Your task to perform on an android device: open wifi settings Image 0: 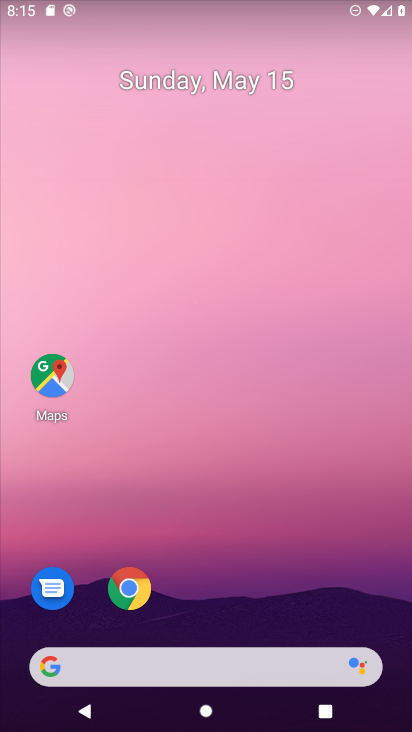
Step 0: drag from (208, 618) to (204, 243)
Your task to perform on an android device: open wifi settings Image 1: 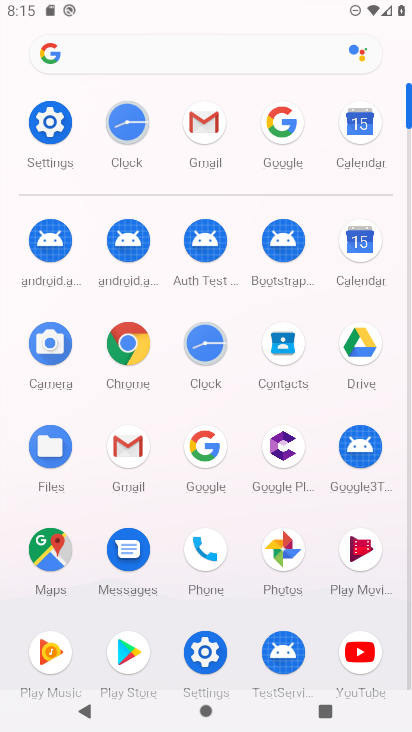
Step 1: click (49, 118)
Your task to perform on an android device: open wifi settings Image 2: 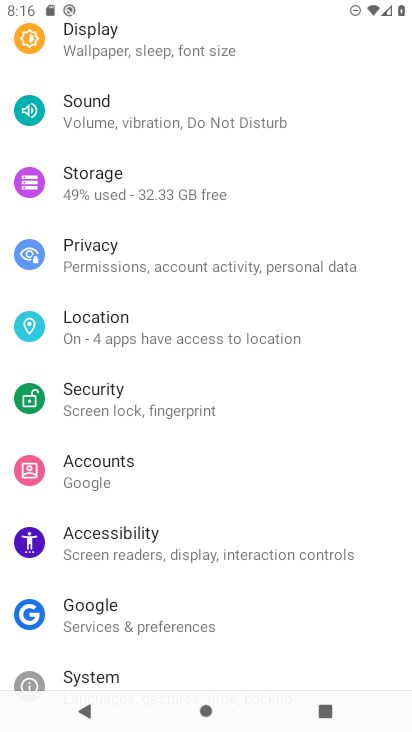
Step 2: drag from (127, 97) to (128, 717)
Your task to perform on an android device: open wifi settings Image 3: 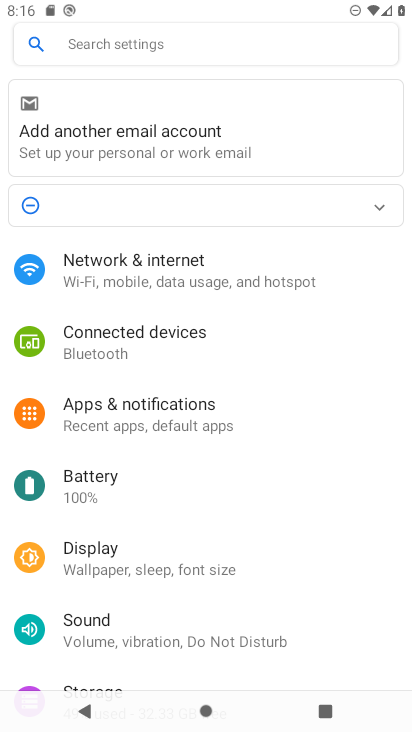
Step 3: click (98, 273)
Your task to perform on an android device: open wifi settings Image 4: 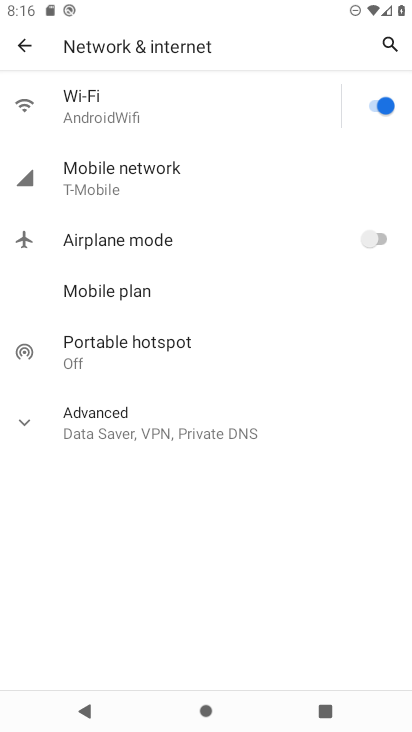
Step 4: click (126, 93)
Your task to perform on an android device: open wifi settings Image 5: 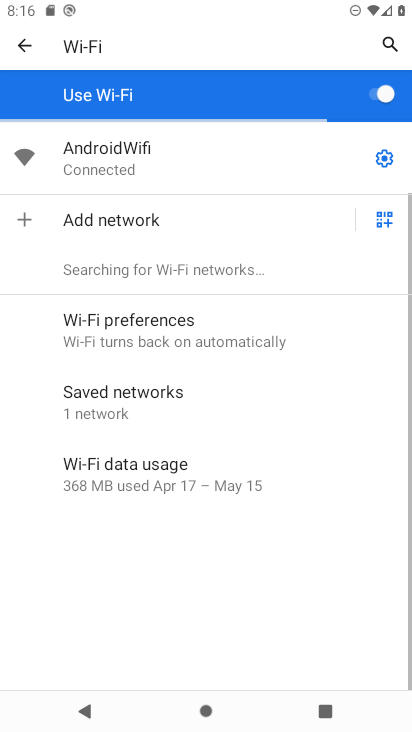
Step 5: task complete